Your task to perform on an android device: check battery use Image 0: 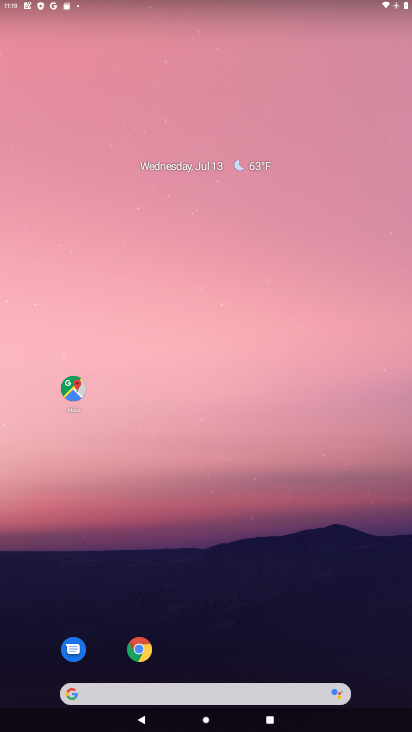
Step 0: drag from (187, 577) to (211, 311)
Your task to perform on an android device: check battery use Image 1: 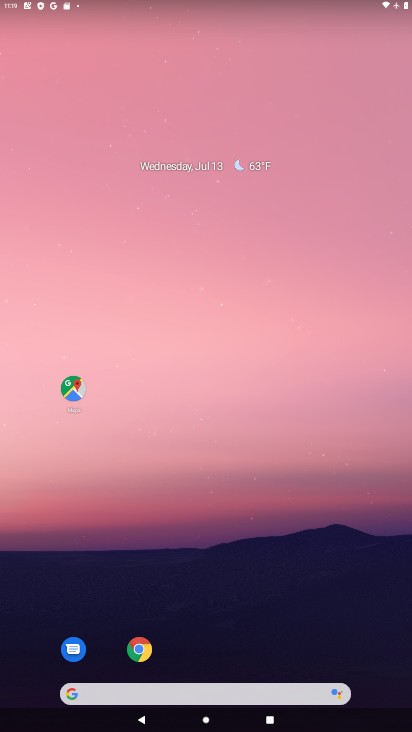
Step 1: drag from (221, 652) to (253, 281)
Your task to perform on an android device: check battery use Image 2: 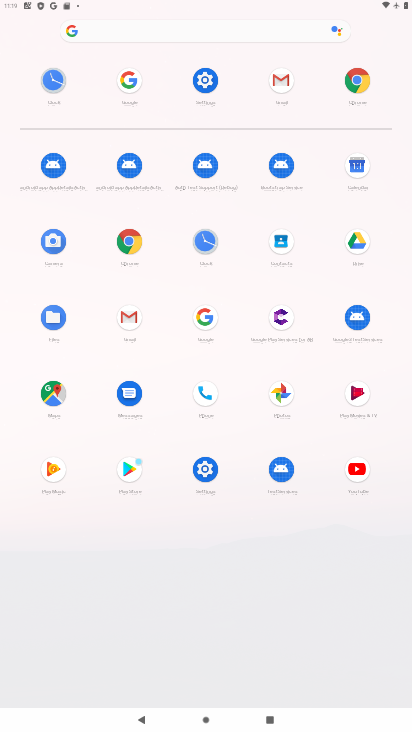
Step 2: click (201, 78)
Your task to perform on an android device: check battery use Image 3: 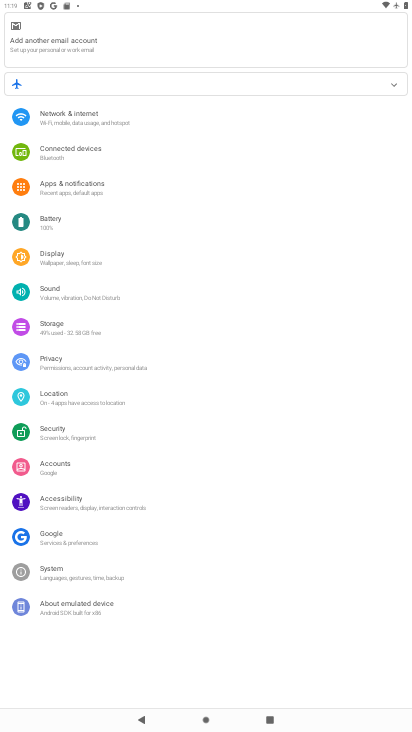
Step 3: click (81, 230)
Your task to perform on an android device: check battery use Image 4: 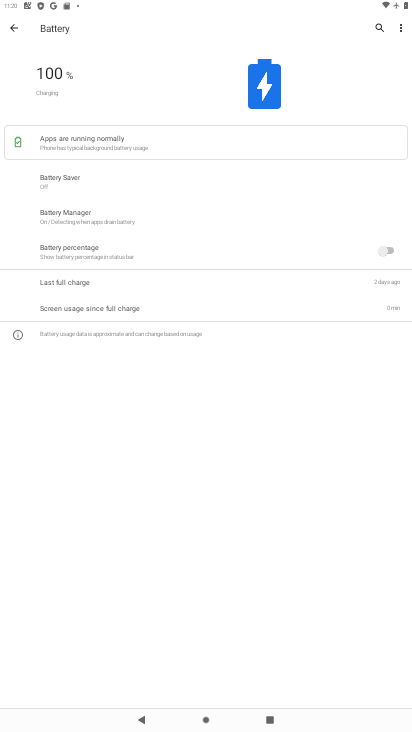
Step 4: click (94, 141)
Your task to perform on an android device: check battery use Image 5: 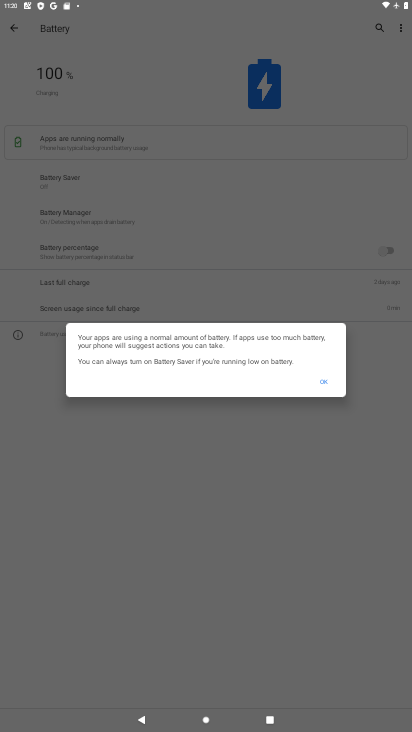
Step 5: click (319, 381)
Your task to perform on an android device: check battery use Image 6: 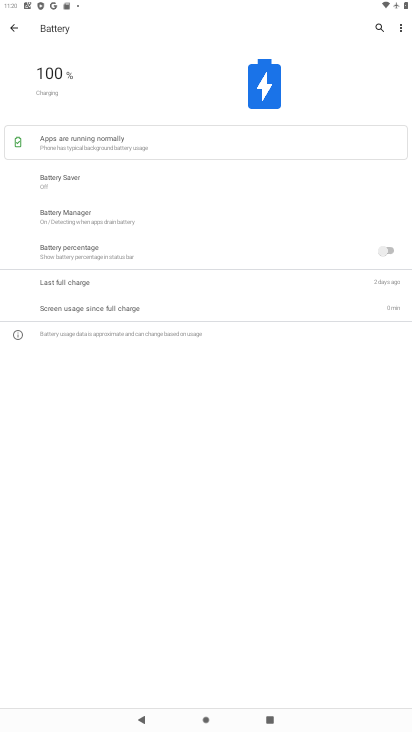
Step 6: task complete